Your task to perform on an android device: Add macbook pro to the cart on newegg.com, then select checkout. Image 0: 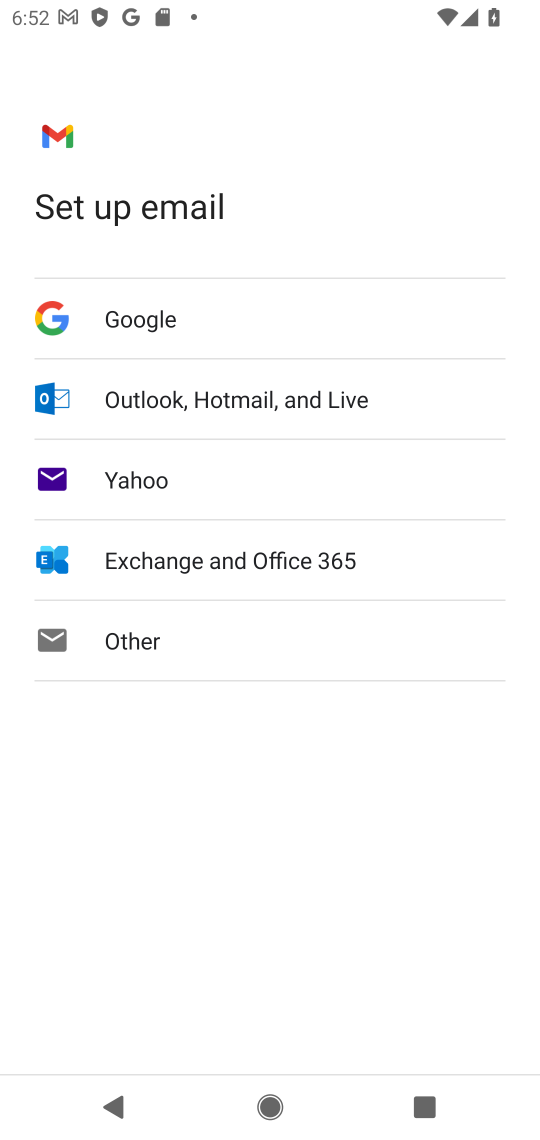
Step 0: press home button
Your task to perform on an android device: Add macbook pro to the cart on newegg.com, then select checkout. Image 1: 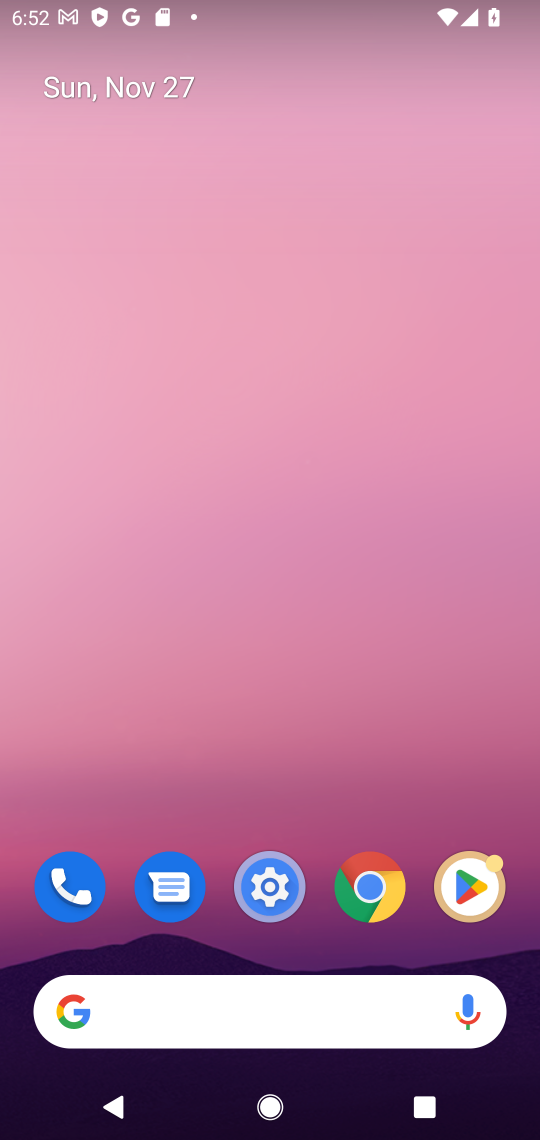
Step 1: click (340, 1041)
Your task to perform on an android device: Add macbook pro to the cart on newegg.com, then select checkout. Image 2: 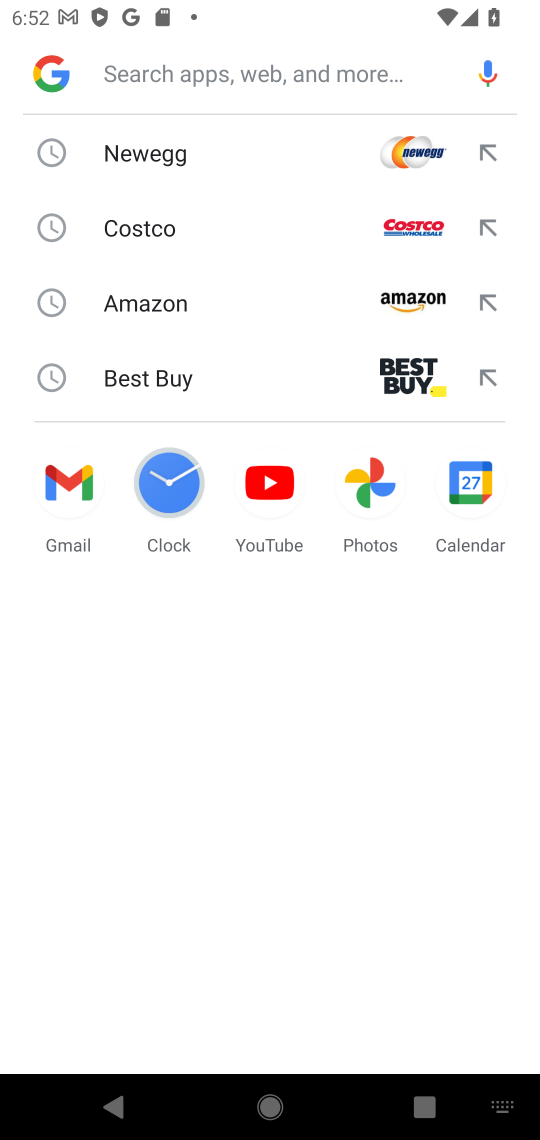
Step 2: click (191, 170)
Your task to perform on an android device: Add macbook pro to the cart on newegg.com, then select checkout. Image 3: 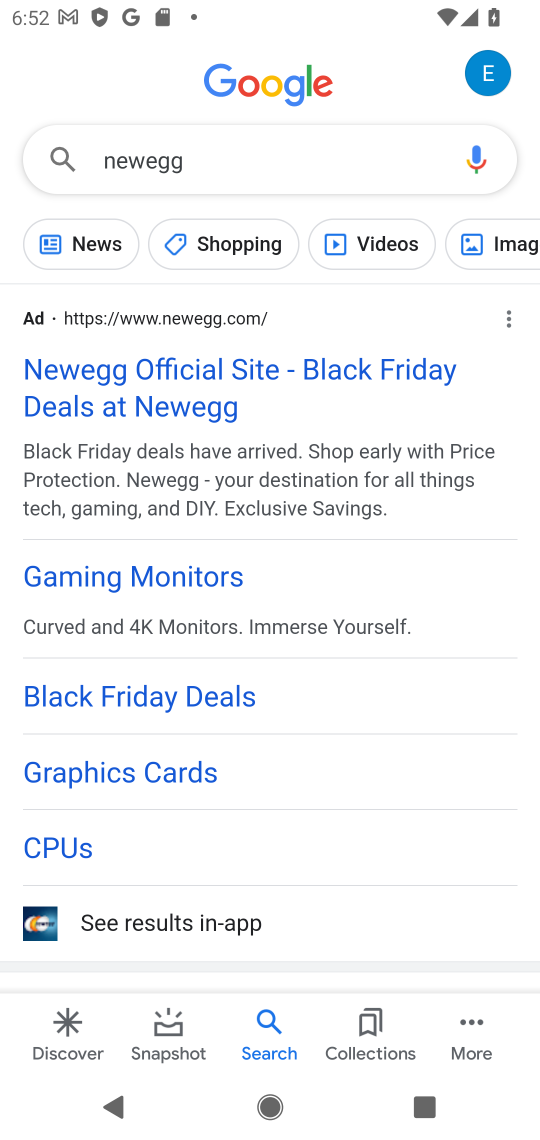
Step 3: click (130, 385)
Your task to perform on an android device: Add macbook pro to the cart on newegg.com, then select checkout. Image 4: 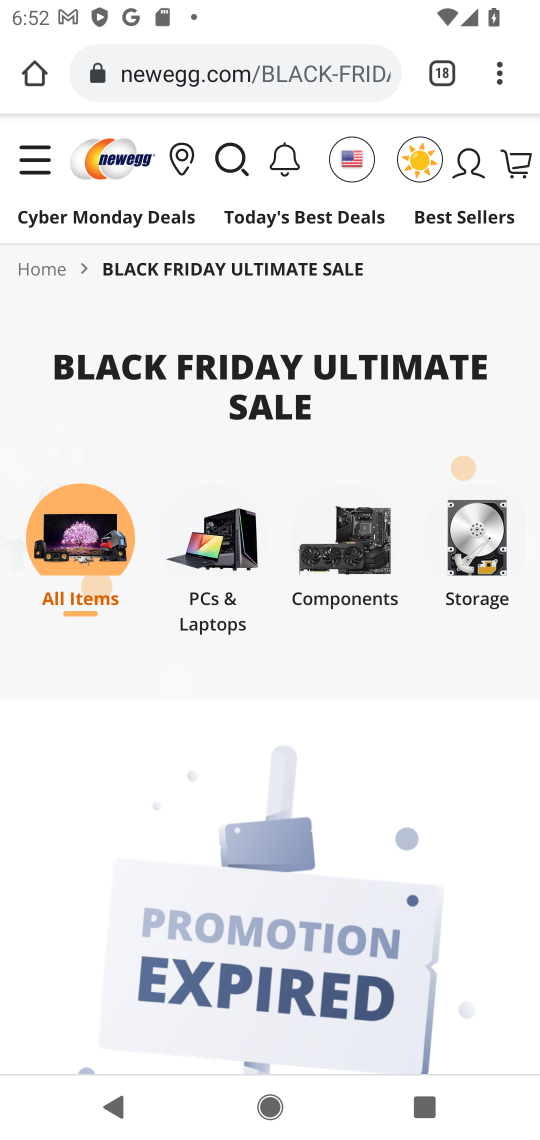
Step 4: click (223, 165)
Your task to perform on an android device: Add macbook pro to the cart on newegg.com, then select checkout. Image 5: 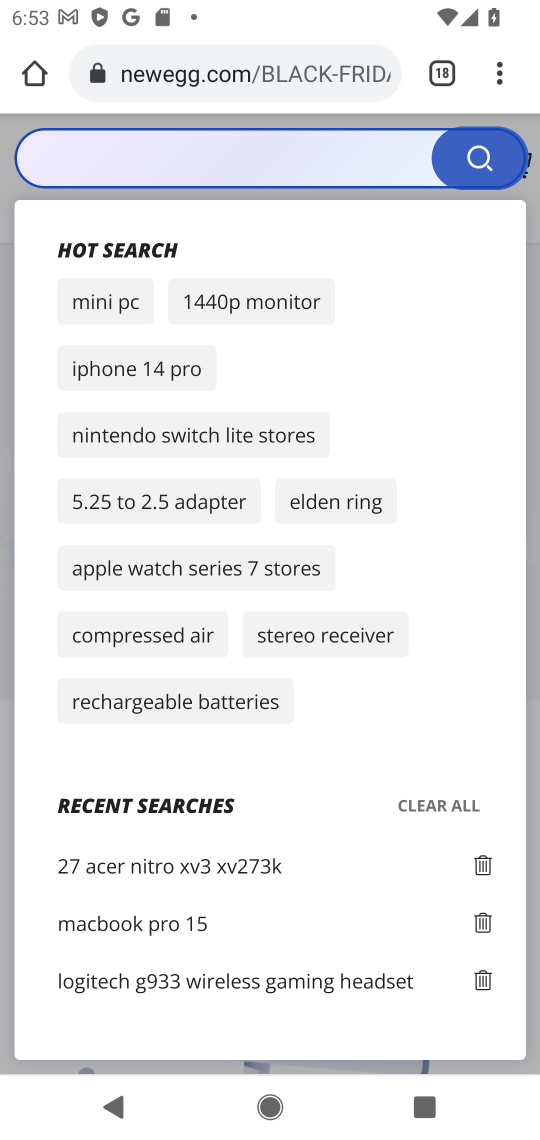
Step 5: type "macbook pro"
Your task to perform on an android device: Add macbook pro to the cart on newegg.com, then select checkout. Image 6: 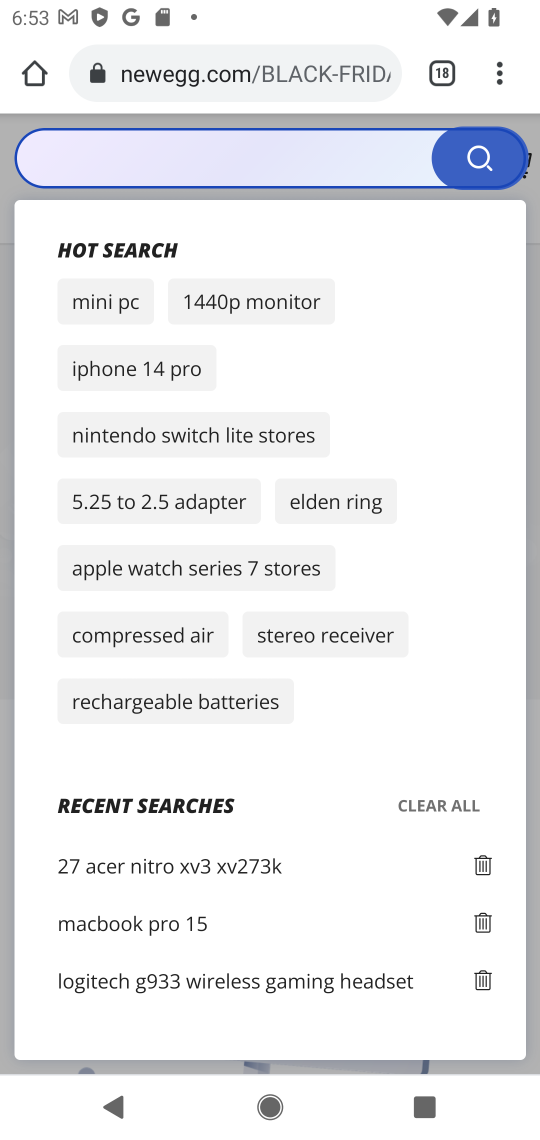
Step 6: click (273, 173)
Your task to perform on an android device: Add macbook pro to the cart on newegg.com, then select checkout. Image 7: 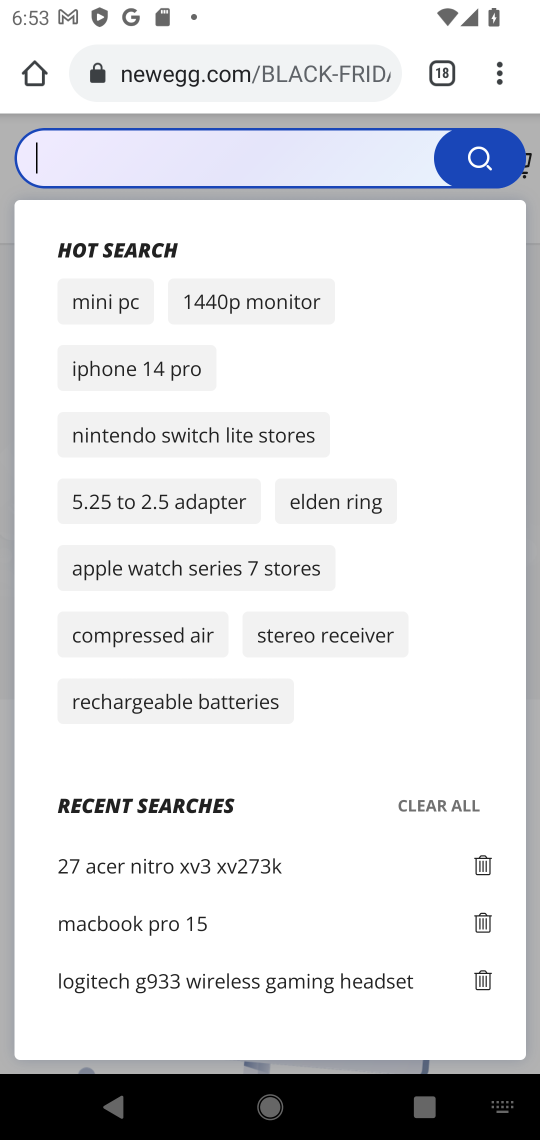
Step 7: click (273, 173)
Your task to perform on an android device: Add macbook pro to the cart on newegg.com, then select checkout. Image 8: 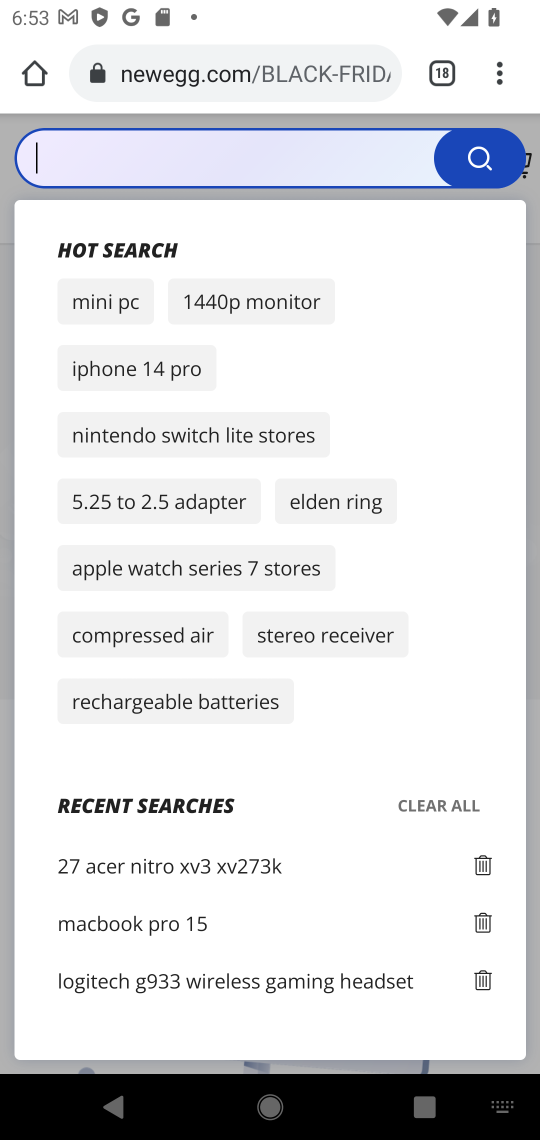
Step 8: type "macbook pro"
Your task to perform on an android device: Add macbook pro to the cart on newegg.com, then select checkout. Image 9: 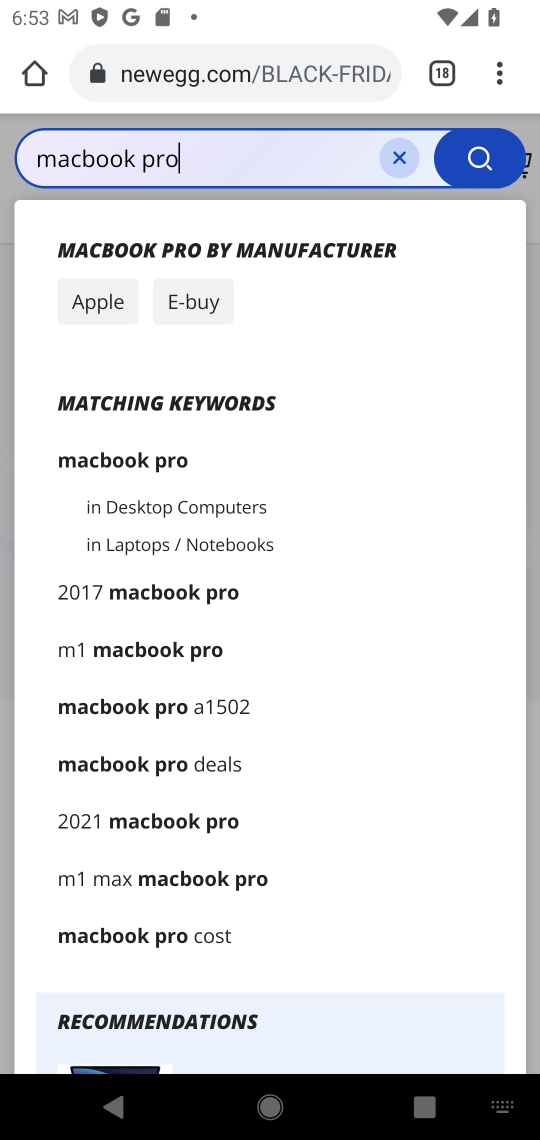
Step 9: click (481, 163)
Your task to perform on an android device: Add macbook pro to the cart on newegg.com, then select checkout. Image 10: 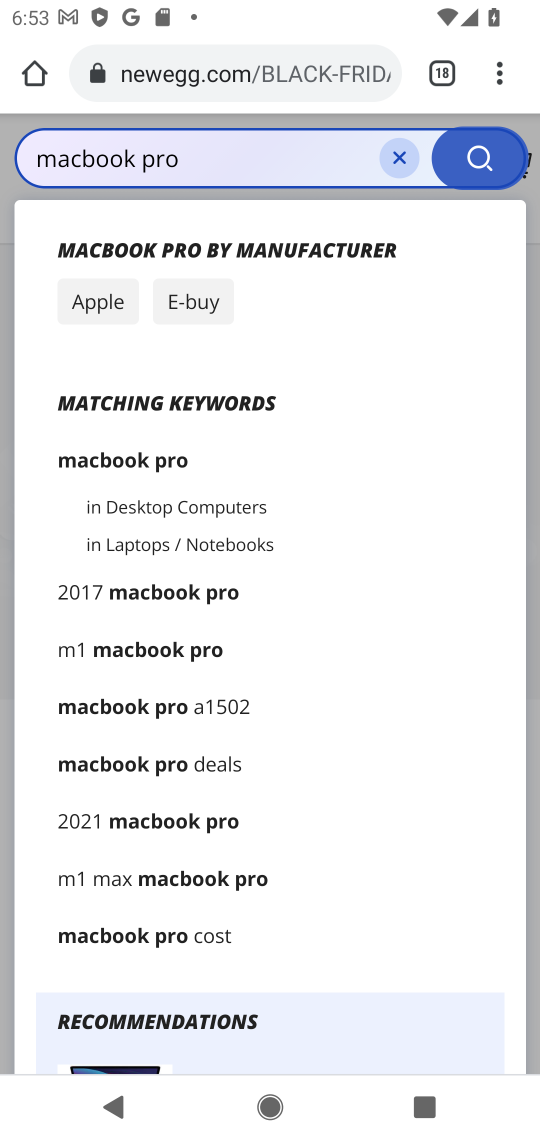
Step 10: click (477, 173)
Your task to perform on an android device: Add macbook pro to the cart on newegg.com, then select checkout. Image 11: 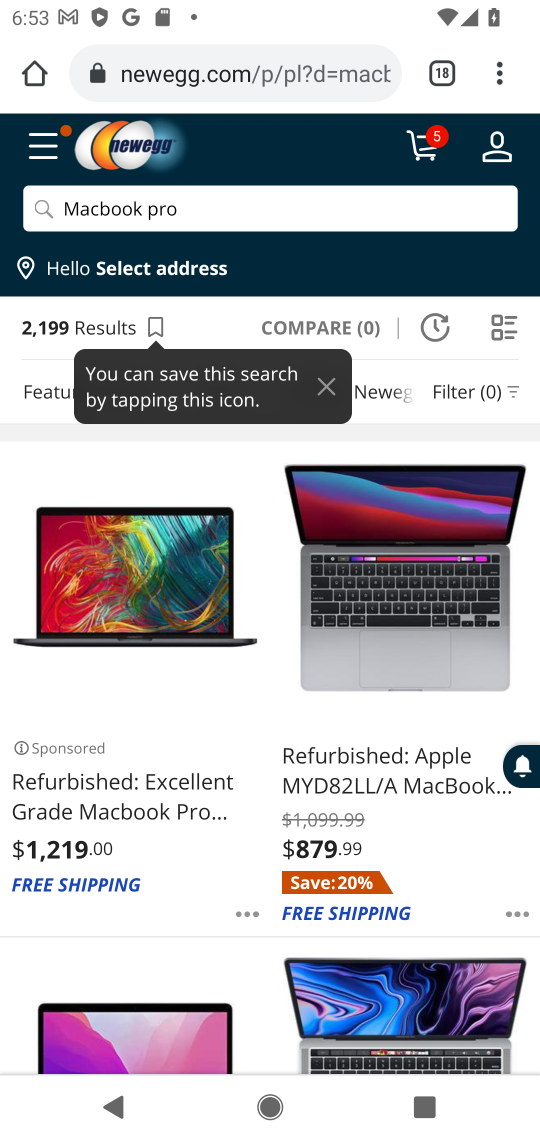
Step 11: click (138, 805)
Your task to perform on an android device: Add macbook pro to the cart on newegg.com, then select checkout. Image 12: 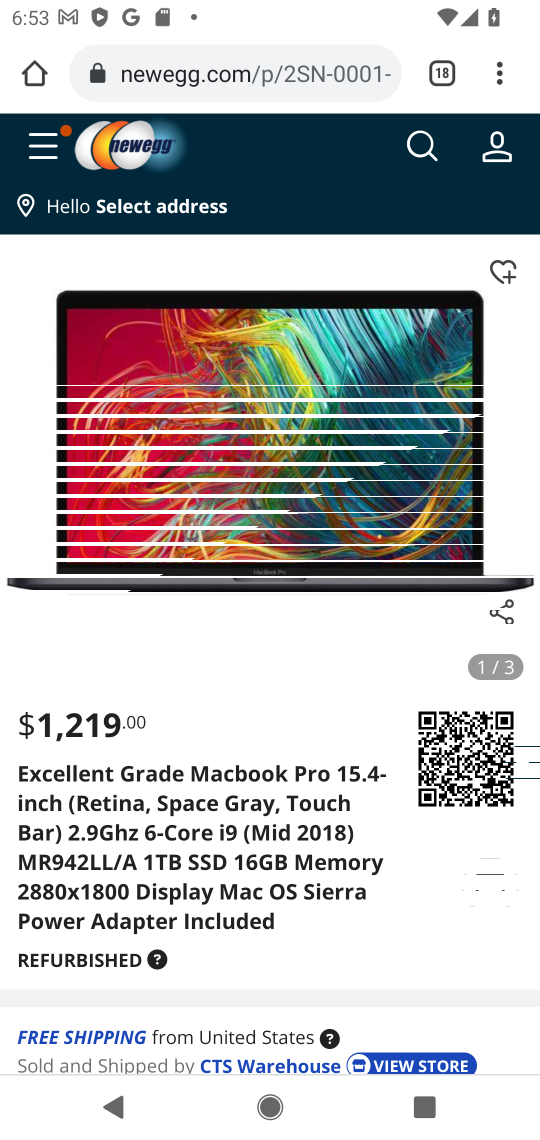
Step 12: drag from (331, 944) to (329, 600)
Your task to perform on an android device: Add macbook pro to the cart on newegg.com, then select checkout. Image 13: 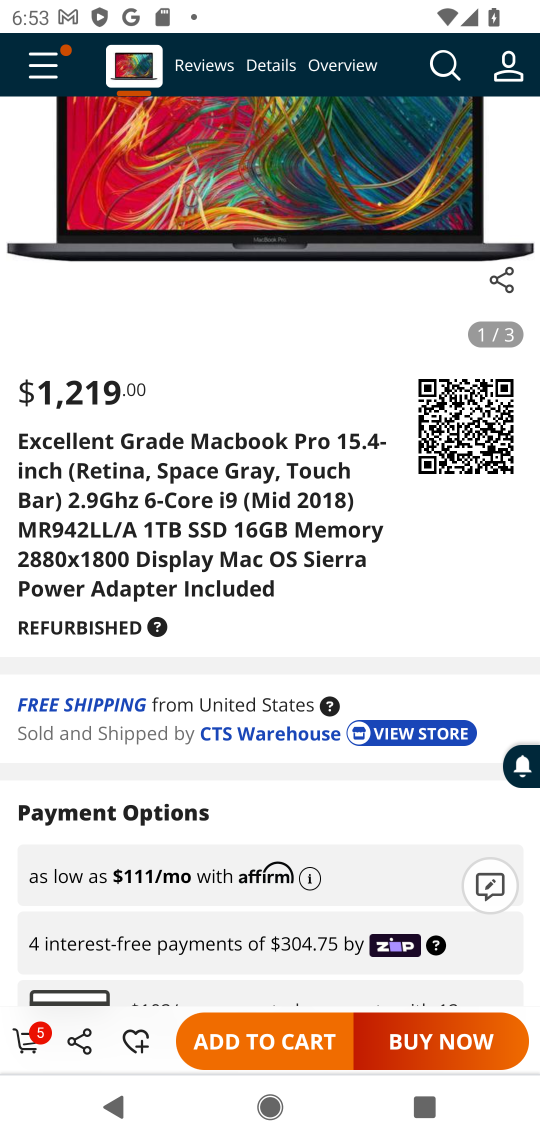
Step 13: click (273, 1034)
Your task to perform on an android device: Add macbook pro to the cart on newegg.com, then select checkout. Image 14: 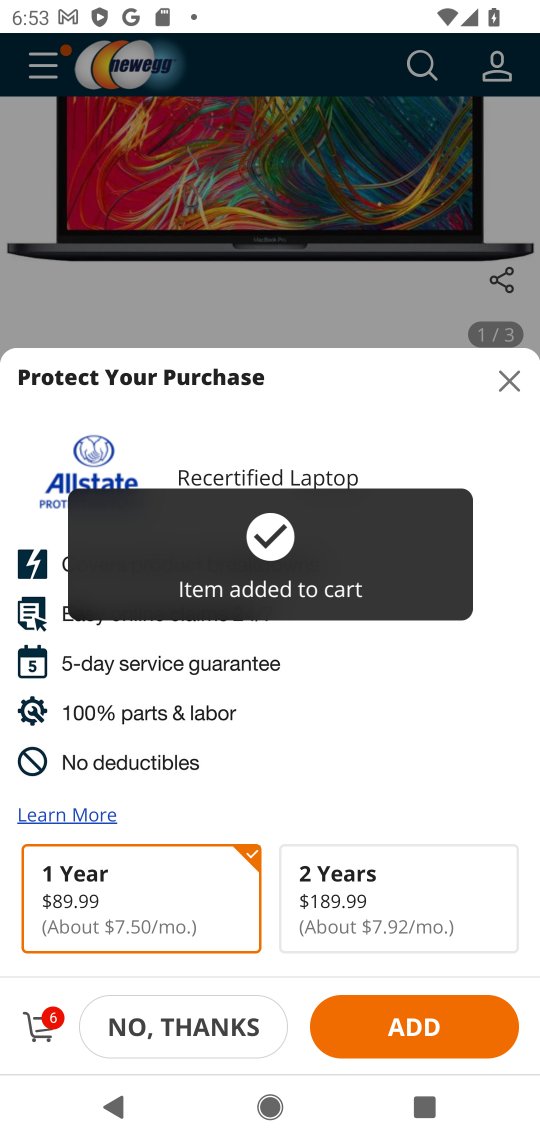
Step 14: task complete